Your task to perform on an android device: Open Reddit.com Image 0: 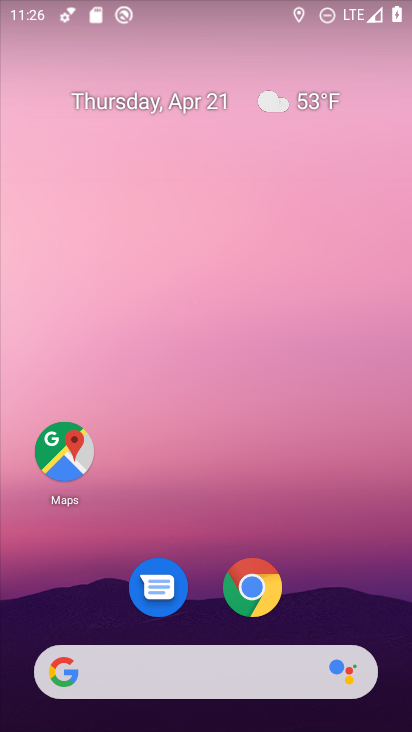
Step 0: click (260, 592)
Your task to perform on an android device: Open Reddit.com Image 1: 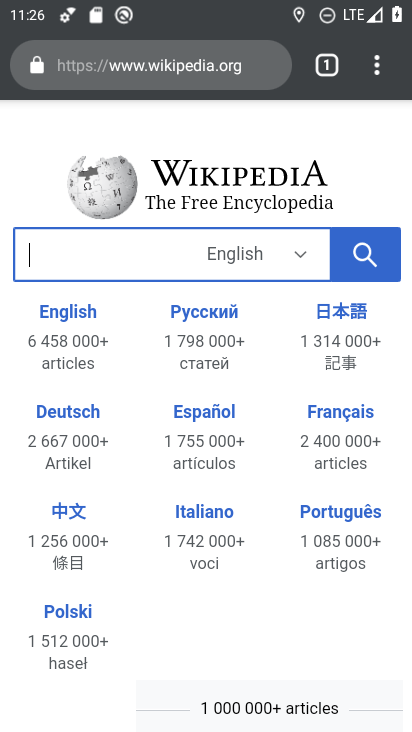
Step 1: click (153, 76)
Your task to perform on an android device: Open Reddit.com Image 2: 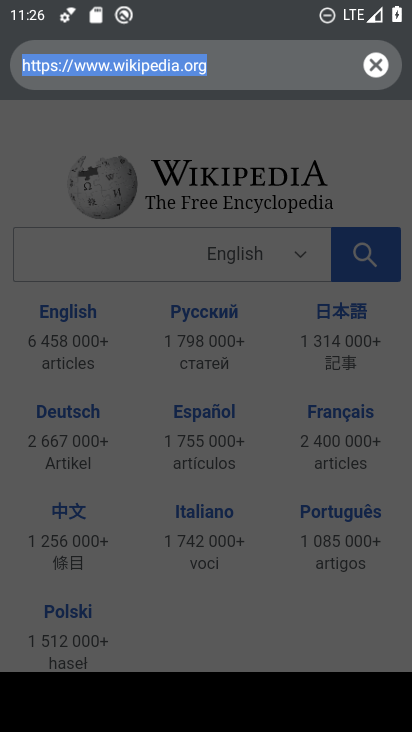
Step 2: type "reddit.com"
Your task to perform on an android device: Open Reddit.com Image 3: 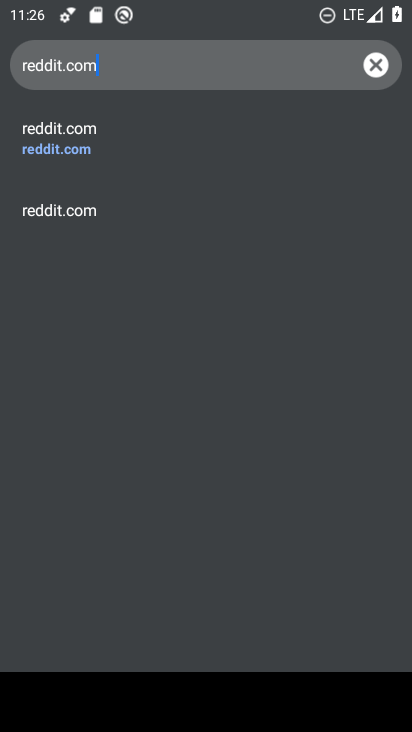
Step 3: click (91, 149)
Your task to perform on an android device: Open Reddit.com Image 4: 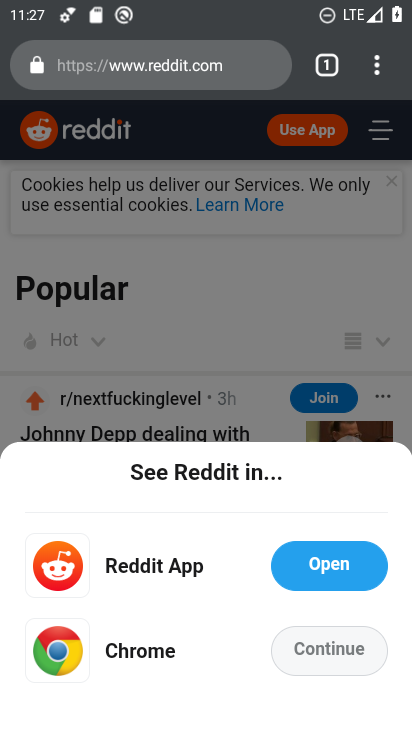
Step 4: task complete